Your task to perform on an android device: check google app version Image 0: 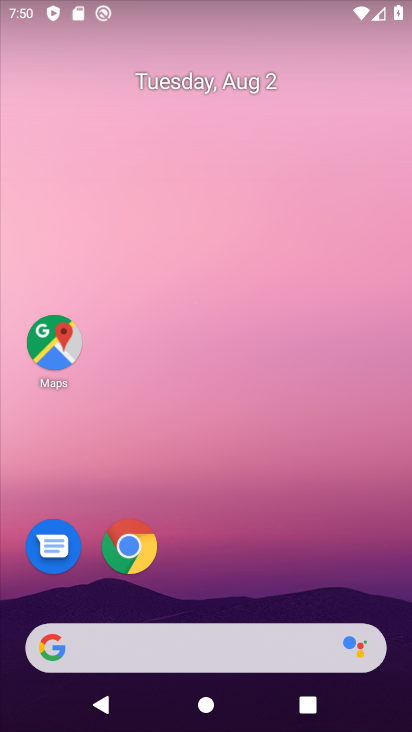
Step 0: drag from (193, 602) to (217, 493)
Your task to perform on an android device: check google app version Image 1: 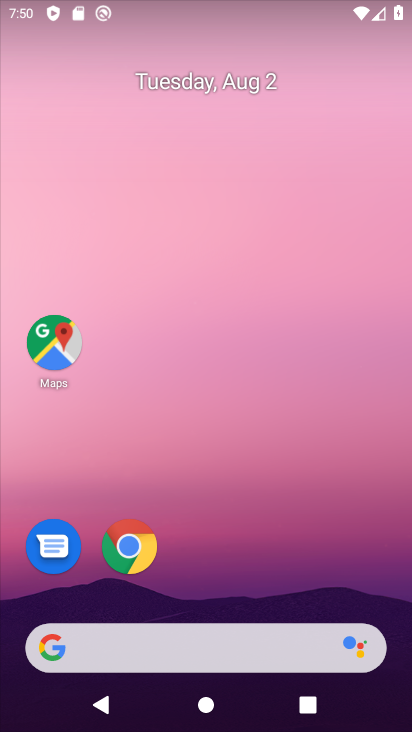
Step 1: click (43, 639)
Your task to perform on an android device: check google app version Image 2: 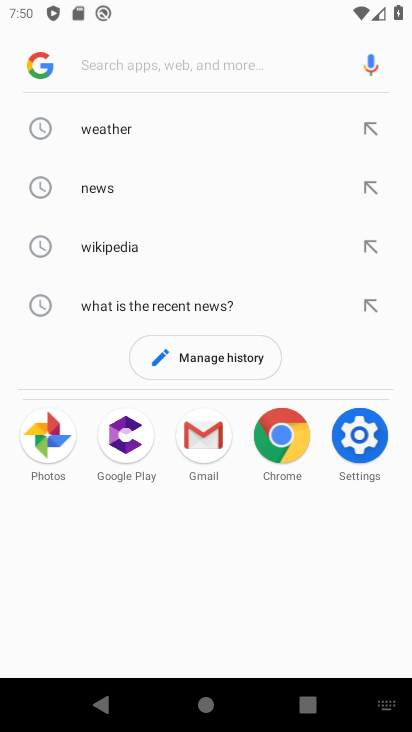
Step 2: click (36, 70)
Your task to perform on an android device: check google app version Image 3: 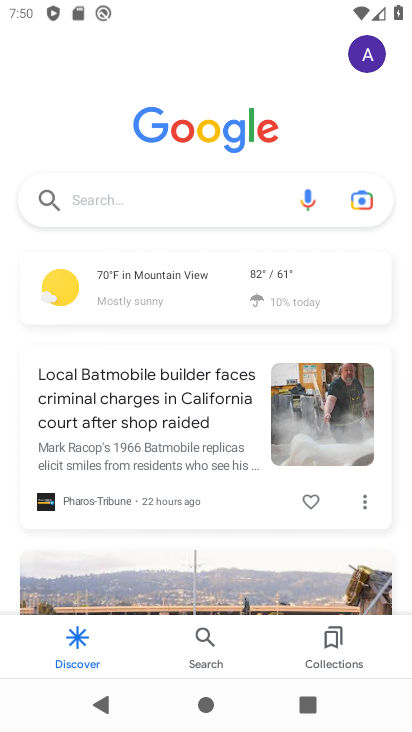
Step 3: click (356, 59)
Your task to perform on an android device: check google app version Image 4: 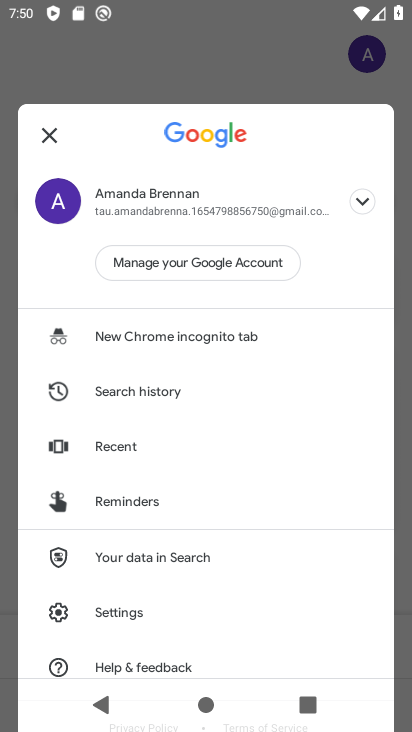
Step 4: click (125, 610)
Your task to perform on an android device: check google app version Image 5: 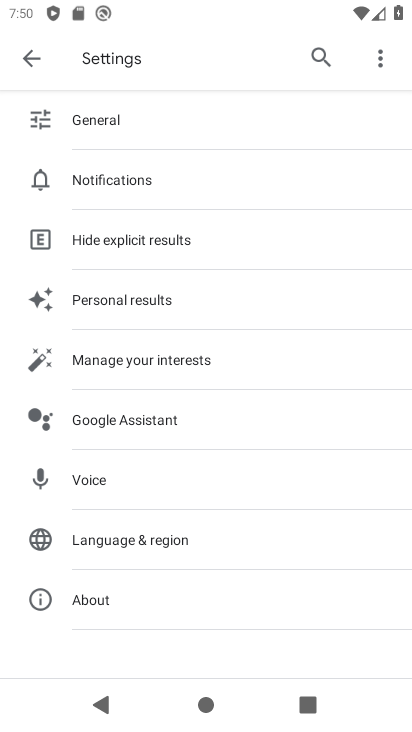
Step 5: click (122, 597)
Your task to perform on an android device: check google app version Image 6: 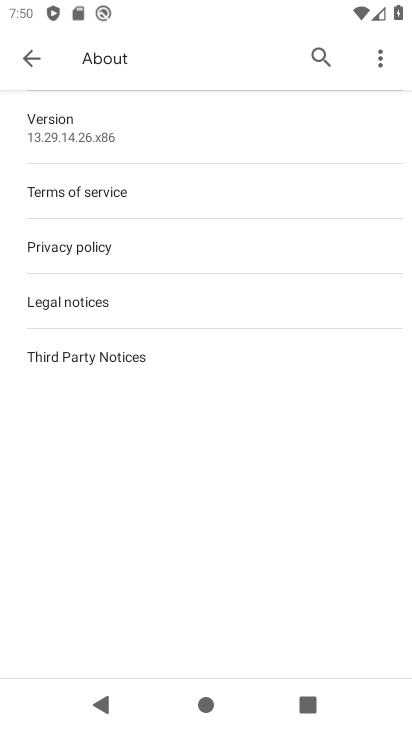
Step 6: task complete